Your task to perform on an android device: remove spam from my inbox in the gmail app Image 0: 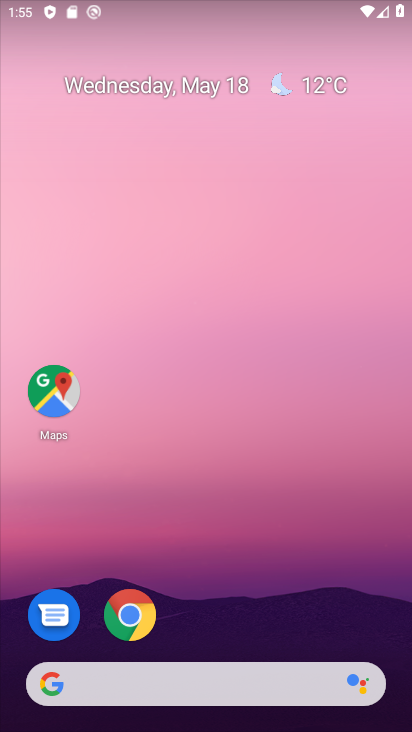
Step 0: drag from (342, 612) to (246, 54)
Your task to perform on an android device: remove spam from my inbox in the gmail app Image 1: 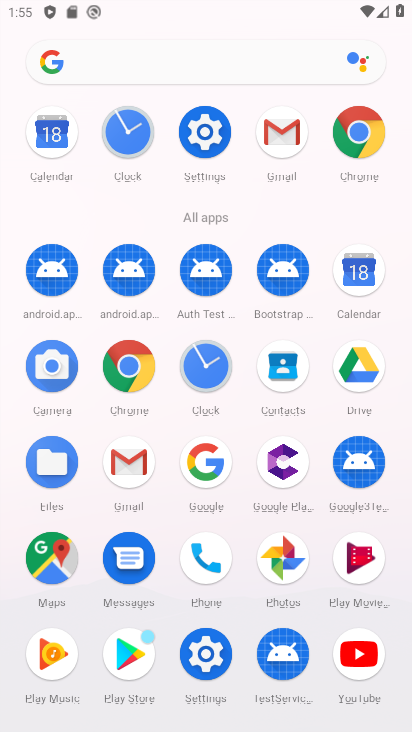
Step 1: click (129, 472)
Your task to perform on an android device: remove spam from my inbox in the gmail app Image 2: 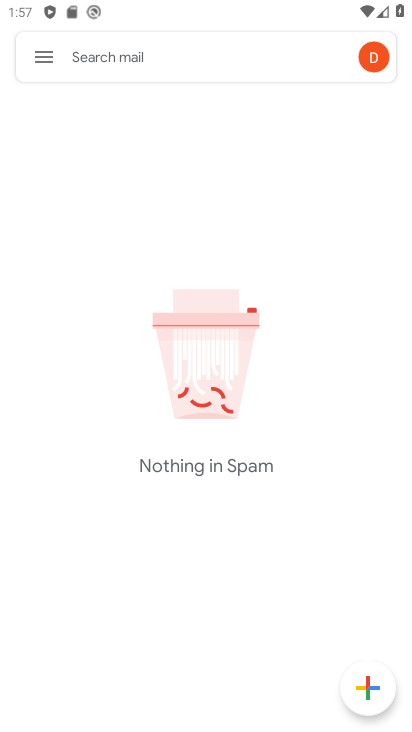
Step 2: press home button
Your task to perform on an android device: remove spam from my inbox in the gmail app Image 3: 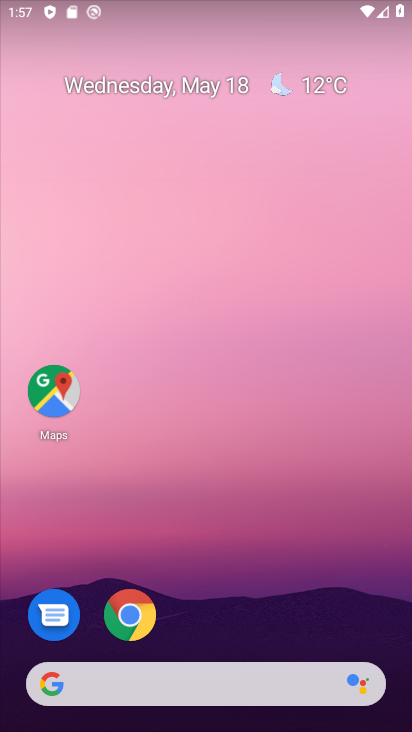
Step 3: drag from (329, 606) to (267, 57)
Your task to perform on an android device: remove spam from my inbox in the gmail app Image 4: 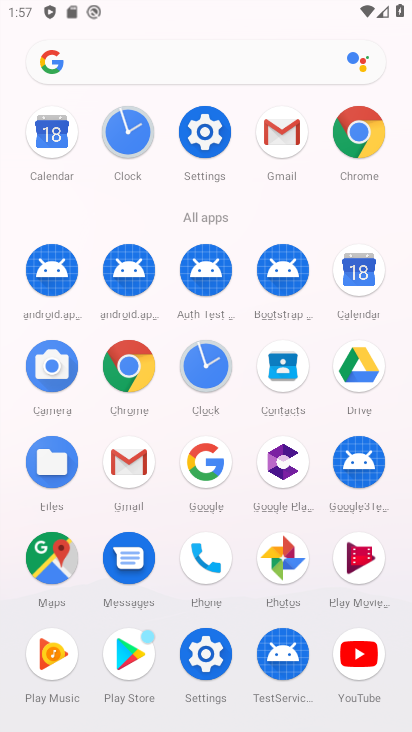
Step 4: click (289, 121)
Your task to perform on an android device: remove spam from my inbox in the gmail app Image 5: 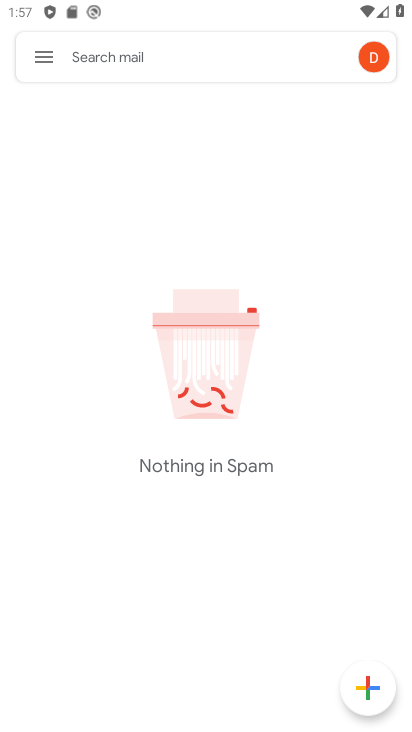
Step 5: click (30, 38)
Your task to perform on an android device: remove spam from my inbox in the gmail app Image 6: 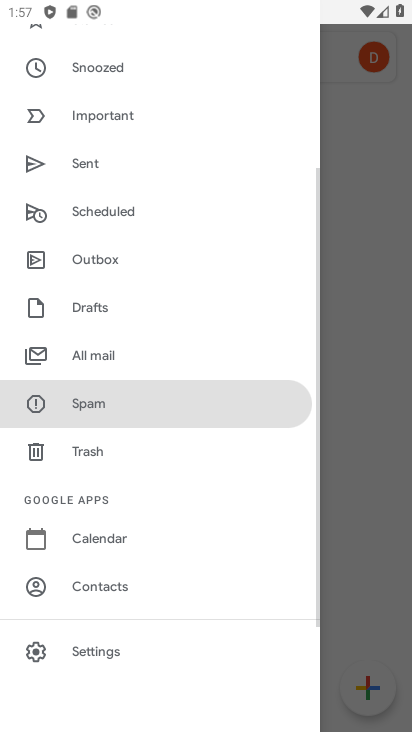
Step 6: click (122, 399)
Your task to perform on an android device: remove spam from my inbox in the gmail app Image 7: 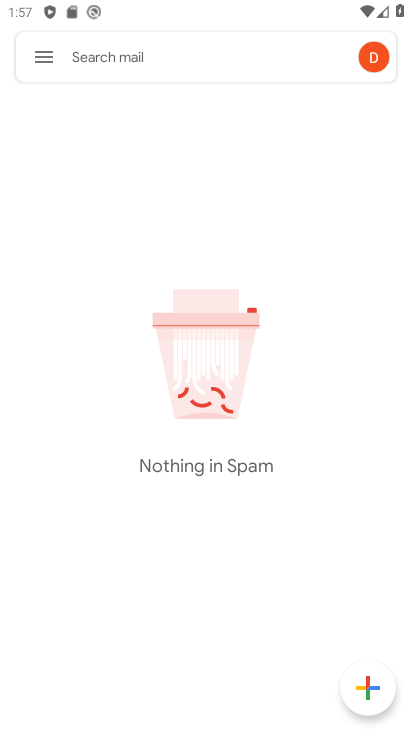
Step 7: task complete